Your task to perform on an android device: Search for vegetarian restaurants on Maps Image 0: 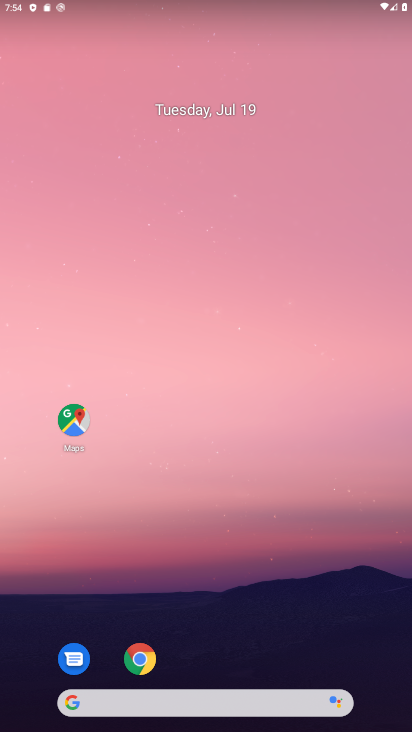
Step 0: click (83, 424)
Your task to perform on an android device: Search for vegetarian restaurants on Maps Image 1: 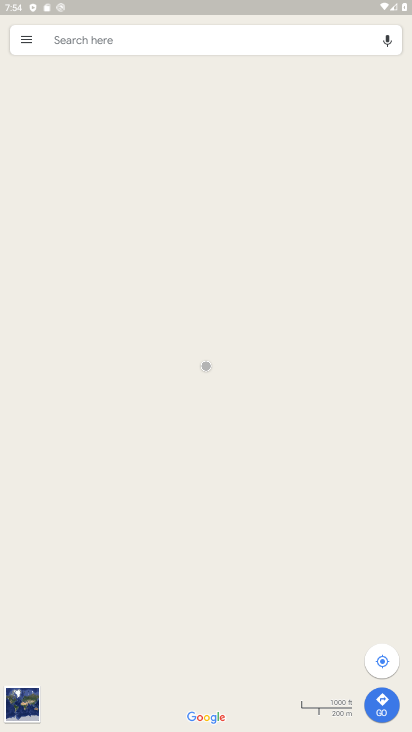
Step 1: click (109, 44)
Your task to perform on an android device: Search for vegetarian restaurants on Maps Image 2: 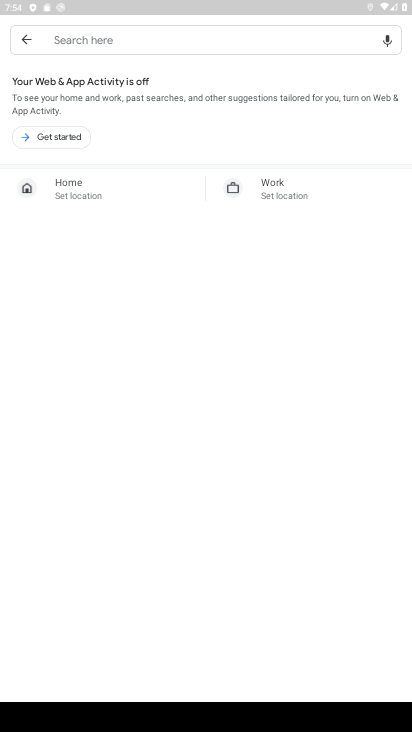
Step 2: type "vegetarian restaurants"
Your task to perform on an android device: Search for vegetarian restaurants on Maps Image 3: 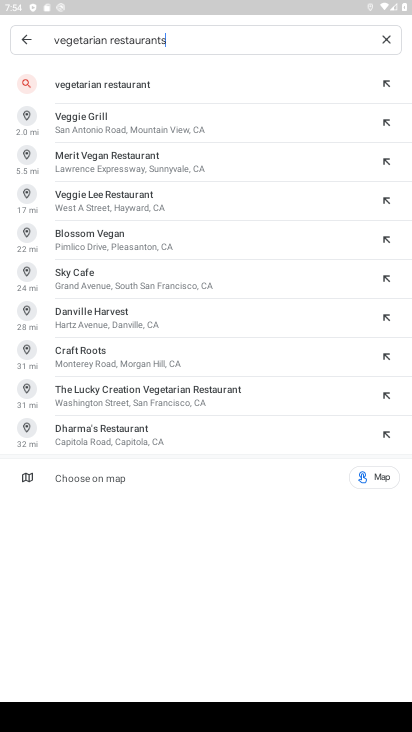
Step 3: click (108, 88)
Your task to perform on an android device: Search for vegetarian restaurants on Maps Image 4: 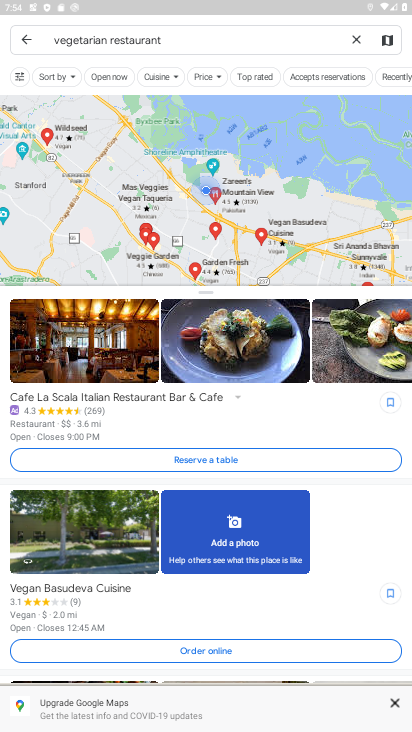
Step 4: task complete